Your task to perform on an android device: Open calendar and show me the fourth week of next month Image 0: 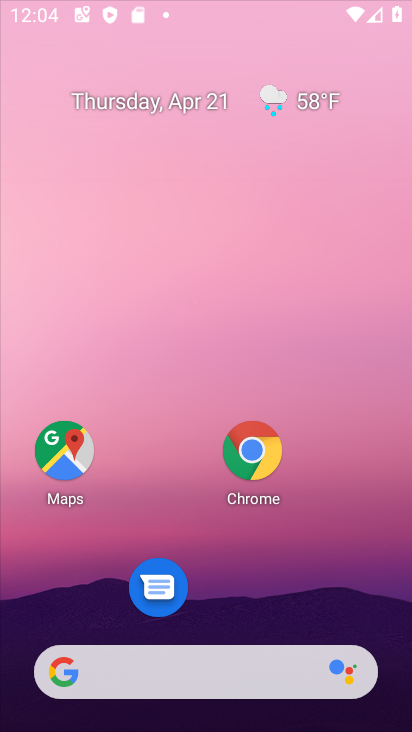
Step 0: click (256, 447)
Your task to perform on an android device: Open calendar and show me the fourth week of next month Image 1: 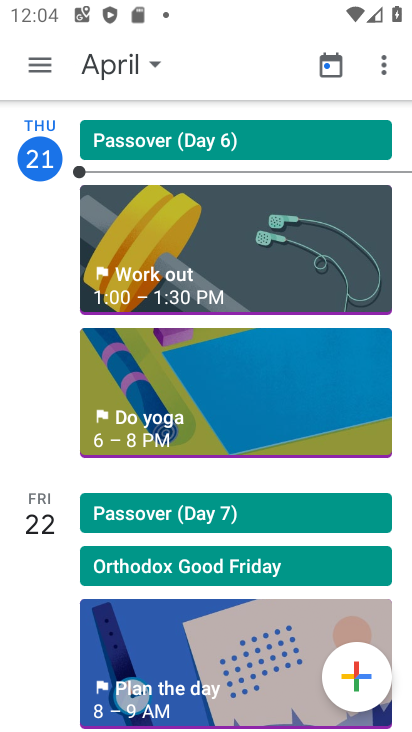
Step 1: click (111, 66)
Your task to perform on an android device: Open calendar and show me the fourth week of next month Image 2: 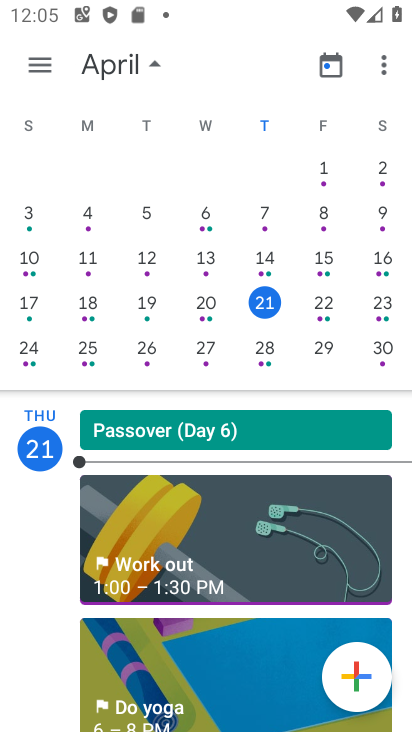
Step 2: drag from (374, 377) to (51, 520)
Your task to perform on an android device: Open calendar and show me the fourth week of next month Image 3: 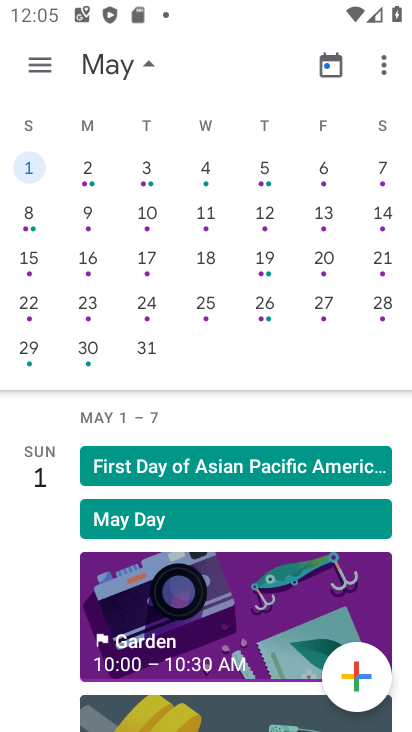
Step 3: click (311, 306)
Your task to perform on an android device: Open calendar and show me the fourth week of next month Image 4: 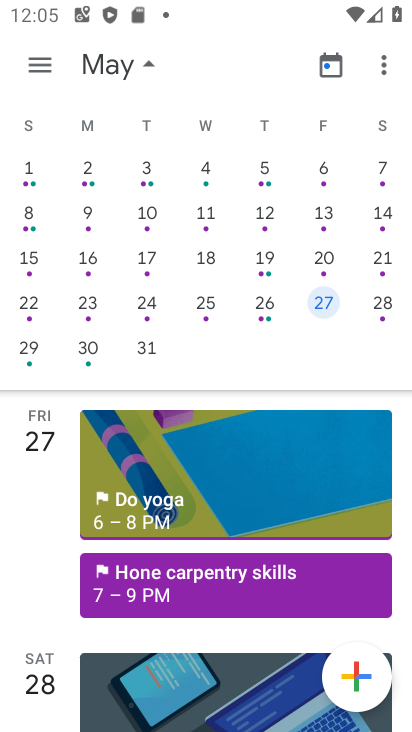
Step 4: task complete